Your task to perform on an android device: toggle location history Image 0: 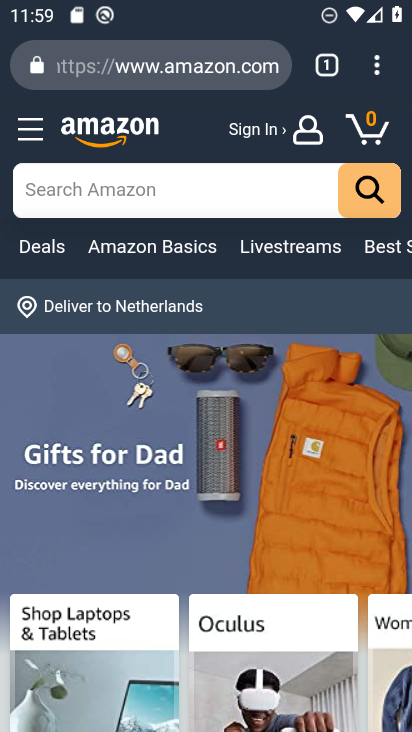
Step 0: press home button
Your task to perform on an android device: toggle location history Image 1: 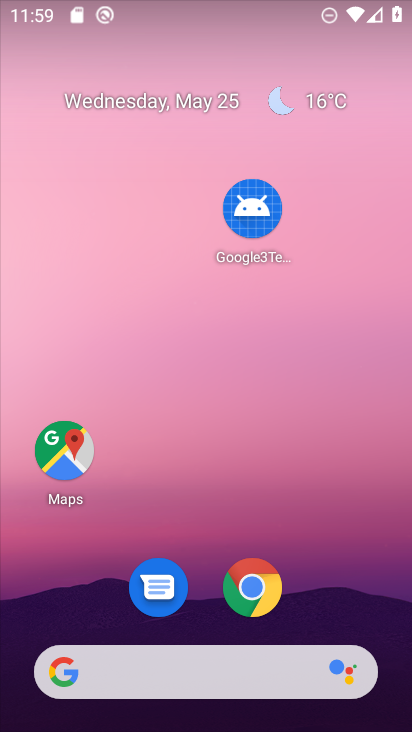
Step 1: drag from (210, 677) to (203, 179)
Your task to perform on an android device: toggle location history Image 2: 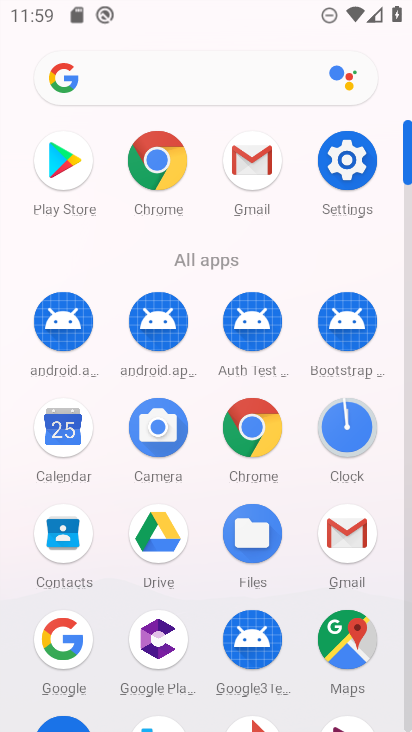
Step 2: click (342, 172)
Your task to perform on an android device: toggle location history Image 3: 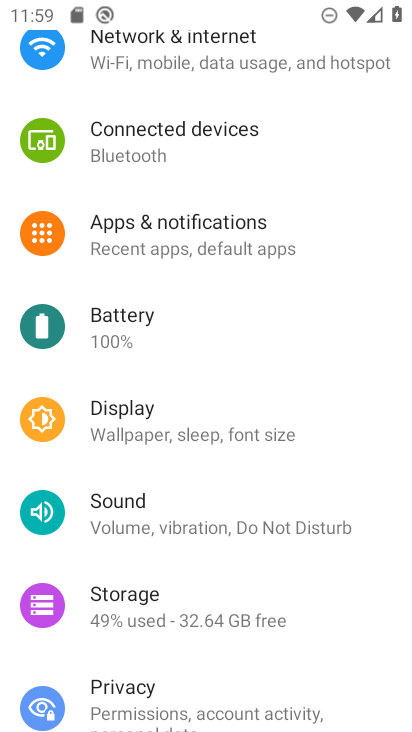
Step 3: drag from (129, 625) to (141, 172)
Your task to perform on an android device: toggle location history Image 4: 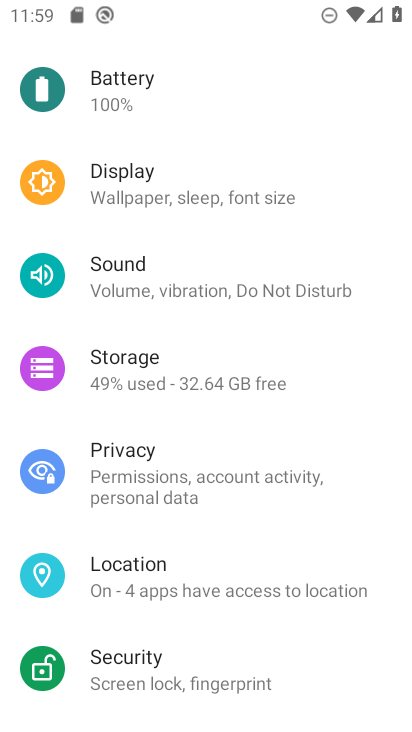
Step 4: click (111, 569)
Your task to perform on an android device: toggle location history Image 5: 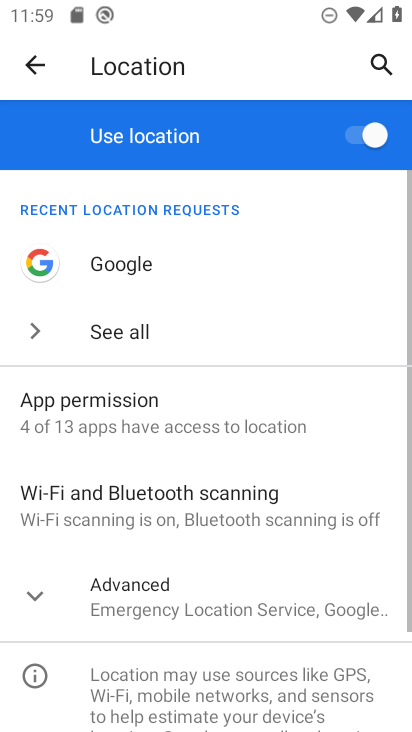
Step 5: click (159, 611)
Your task to perform on an android device: toggle location history Image 6: 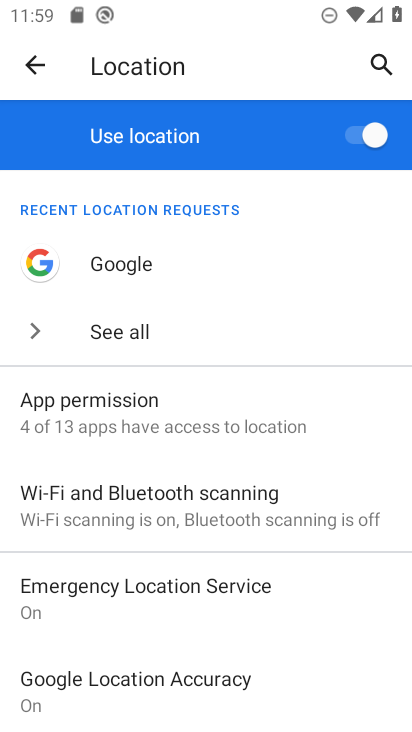
Step 6: drag from (151, 632) to (153, 152)
Your task to perform on an android device: toggle location history Image 7: 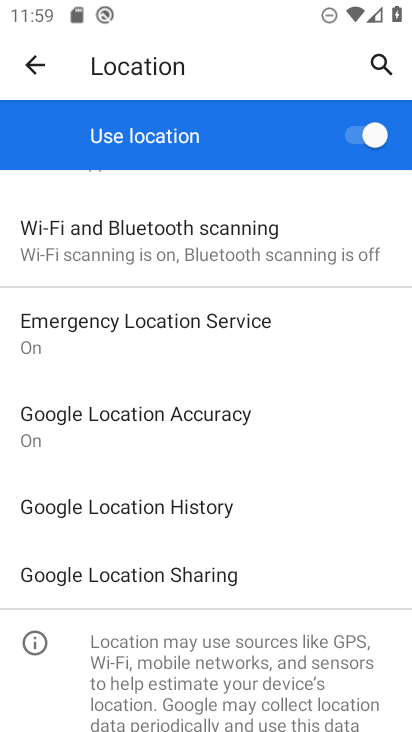
Step 7: click (180, 496)
Your task to perform on an android device: toggle location history Image 8: 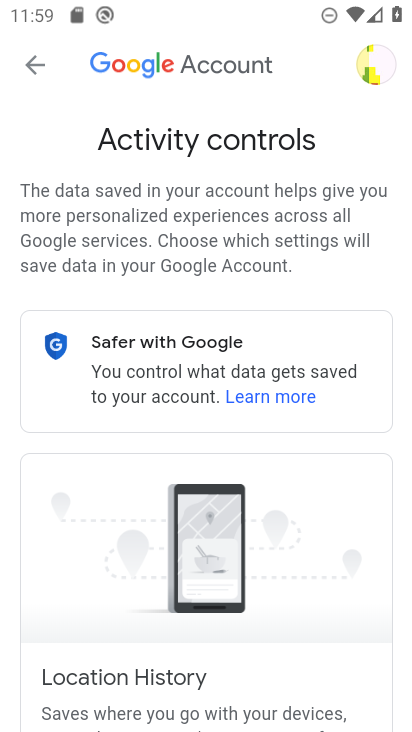
Step 8: drag from (242, 576) to (38, 115)
Your task to perform on an android device: toggle location history Image 9: 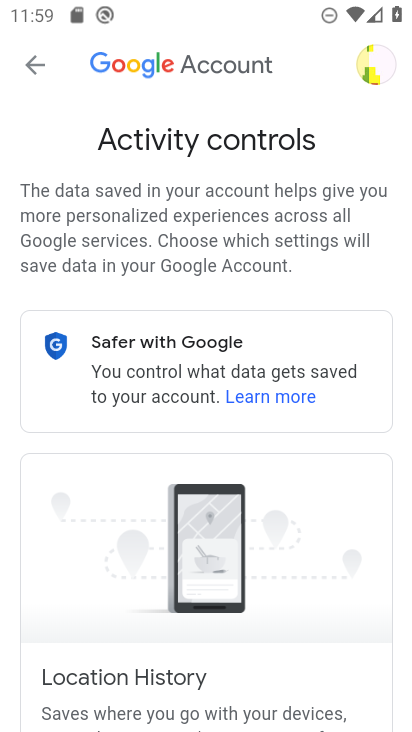
Step 9: drag from (225, 466) to (72, 103)
Your task to perform on an android device: toggle location history Image 10: 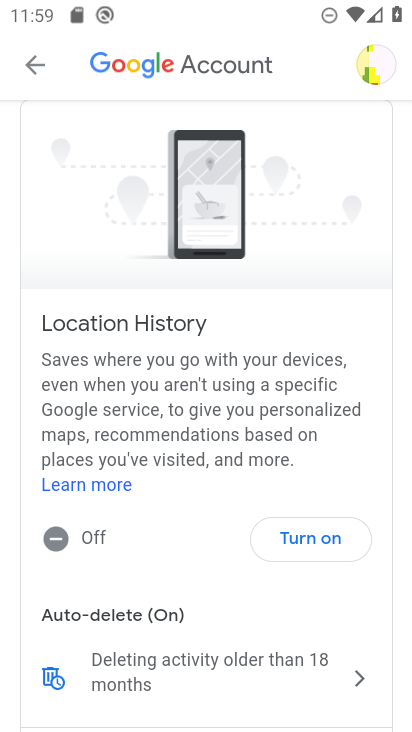
Step 10: click (315, 536)
Your task to perform on an android device: toggle location history Image 11: 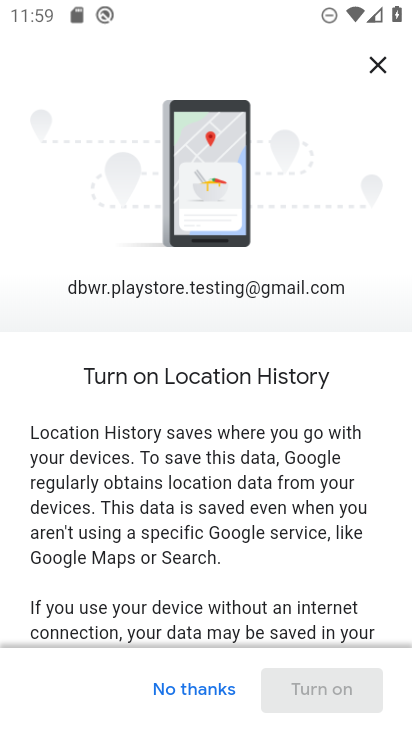
Step 11: drag from (319, 606) to (68, 84)
Your task to perform on an android device: toggle location history Image 12: 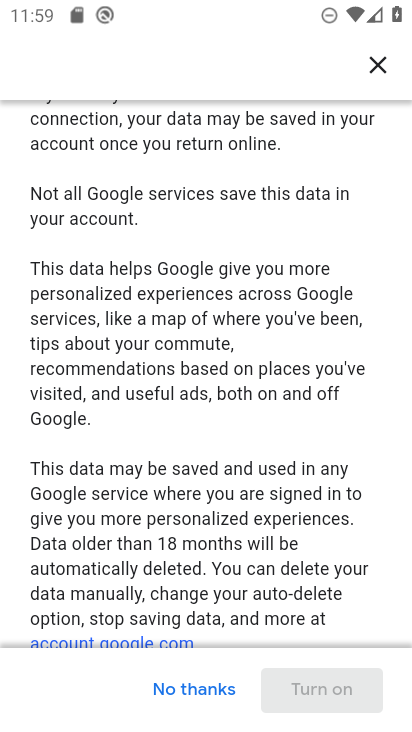
Step 12: drag from (317, 562) to (8, 348)
Your task to perform on an android device: toggle location history Image 13: 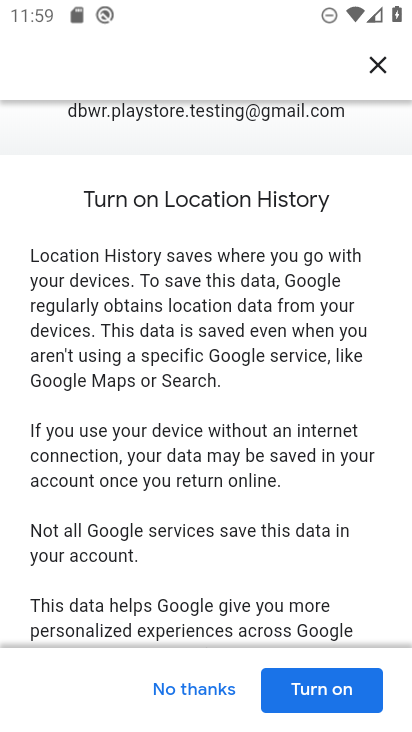
Step 13: click (293, 686)
Your task to perform on an android device: toggle location history Image 14: 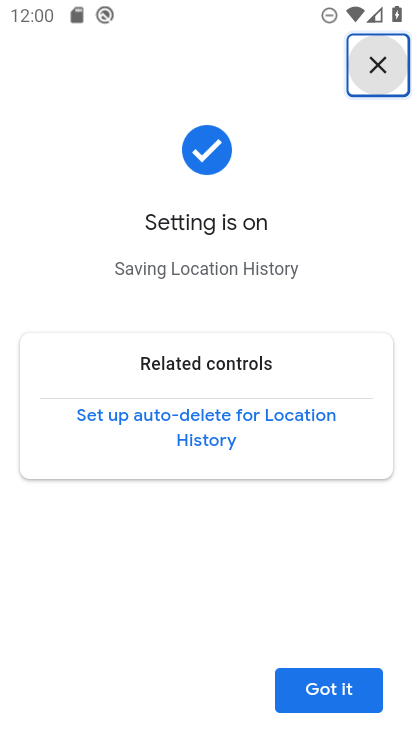
Step 14: click (361, 679)
Your task to perform on an android device: toggle location history Image 15: 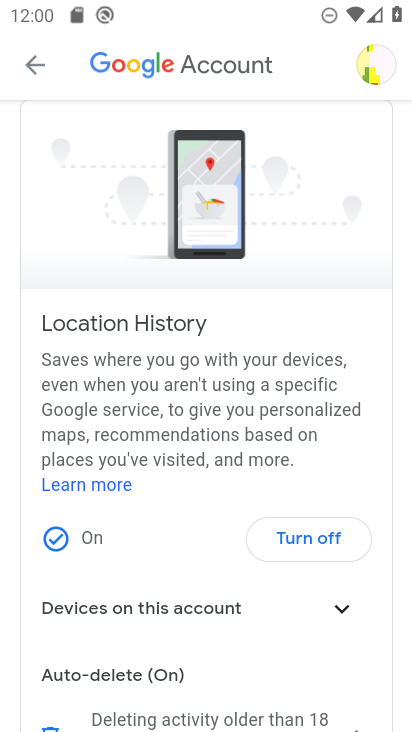
Step 15: task complete